Your task to perform on an android device: search for outdoor chairs on article.com Image 0: 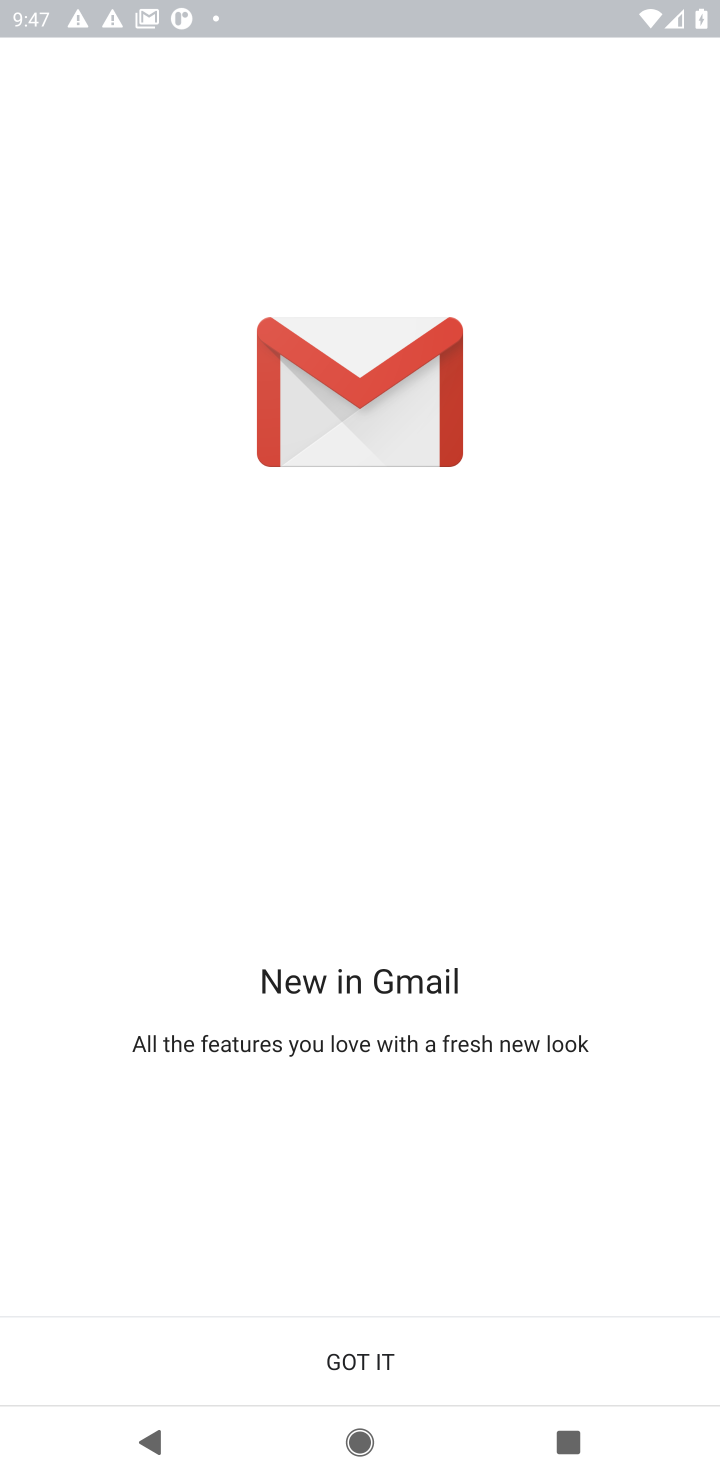
Step 0: press home button
Your task to perform on an android device: search for outdoor chairs on article.com Image 1: 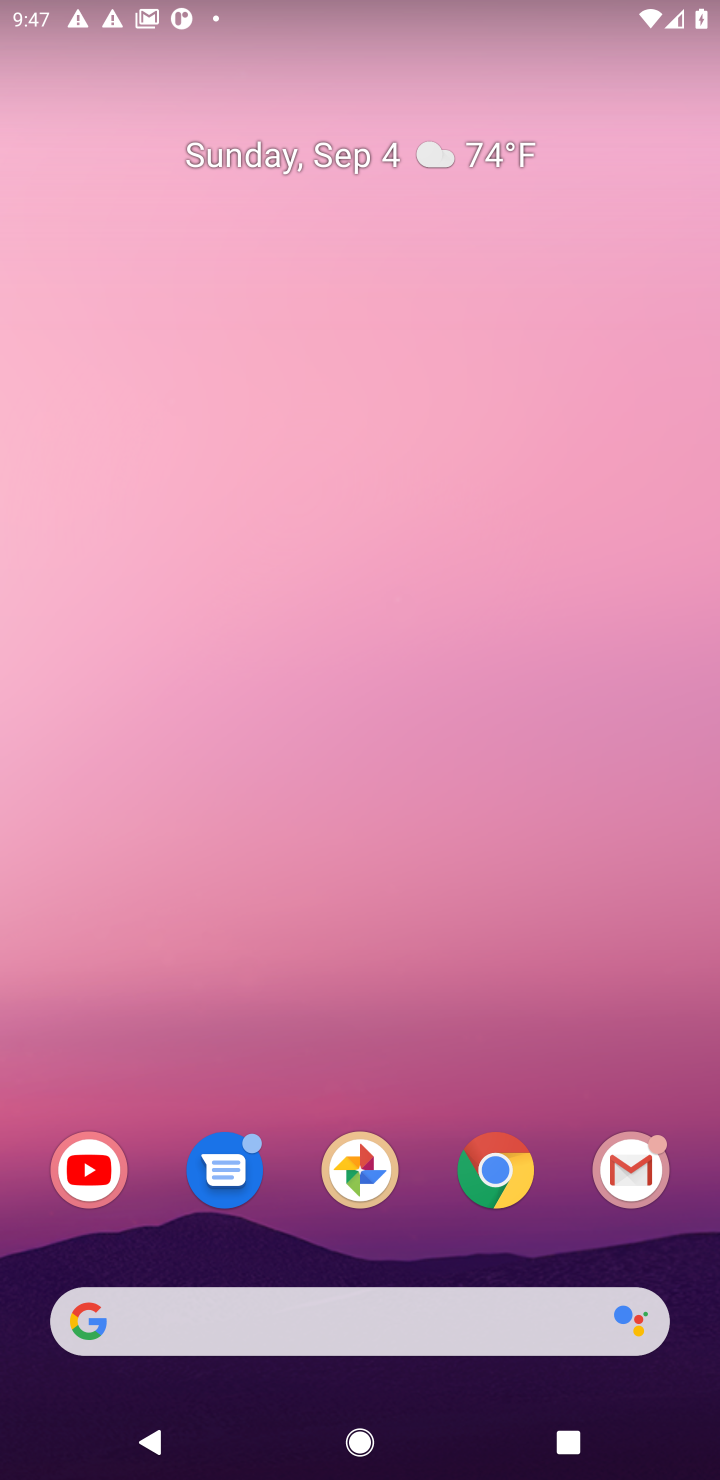
Step 1: drag from (339, 1246) to (422, 15)
Your task to perform on an android device: search for outdoor chairs on article.com Image 2: 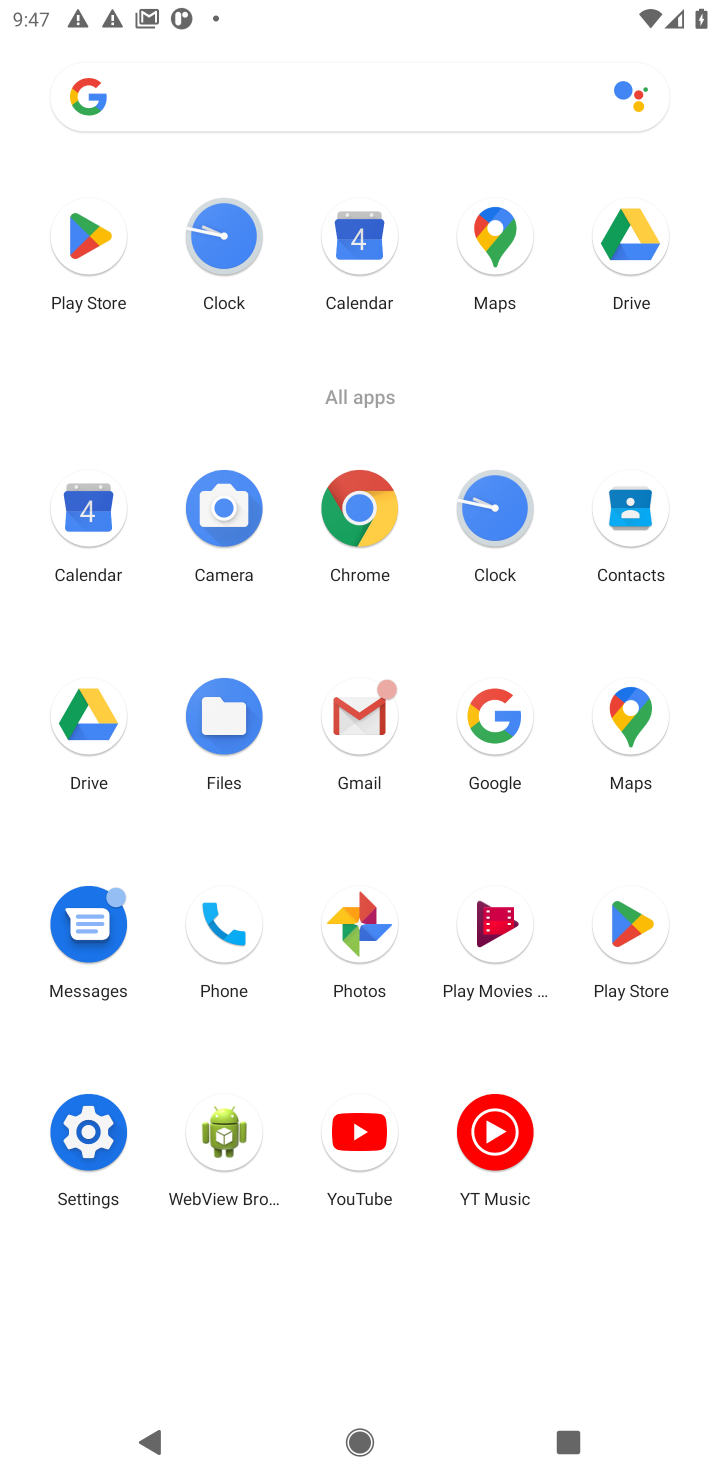
Step 2: click (333, 494)
Your task to perform on an android device: search for outdoor chairs on article.com Image 3: 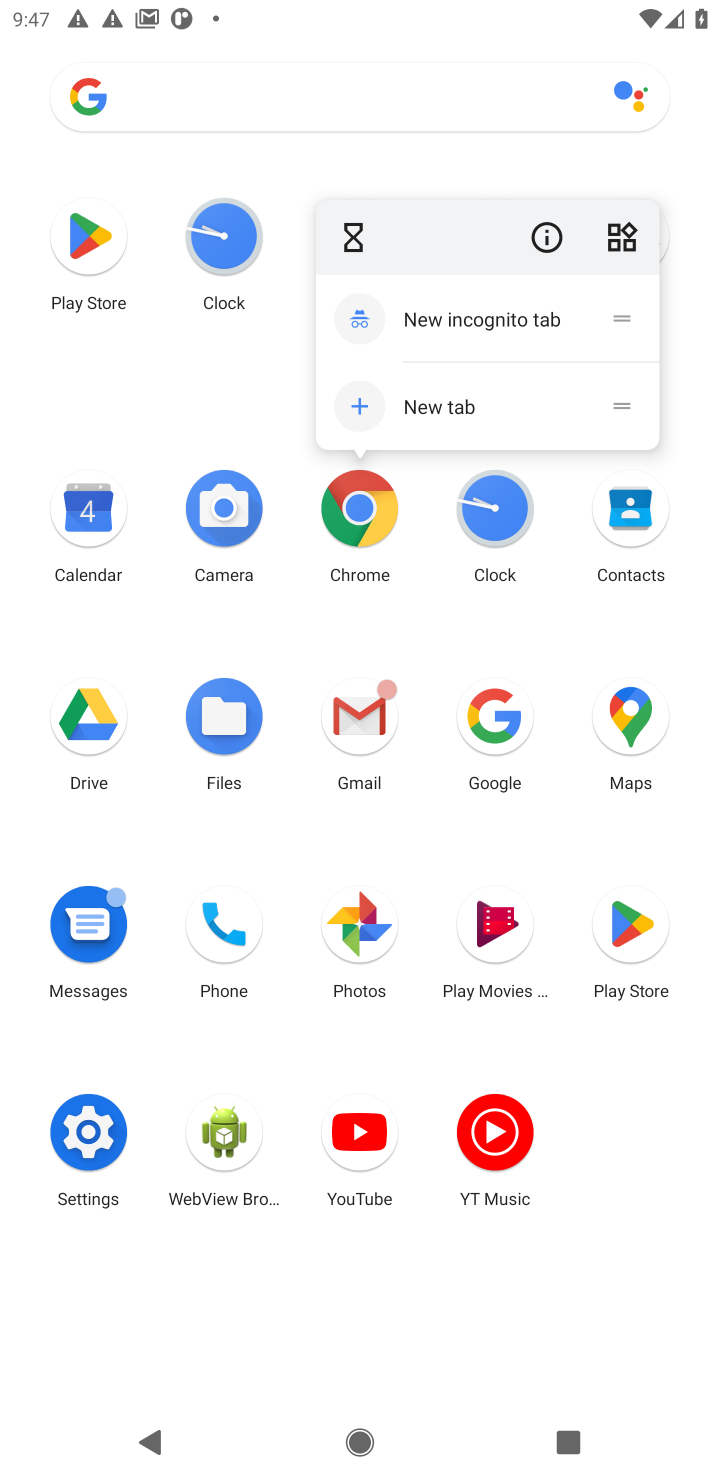
Step 3: click (333, 494)
Your task to perform on an android device: search for outdoor chairs on article.com Image 4: 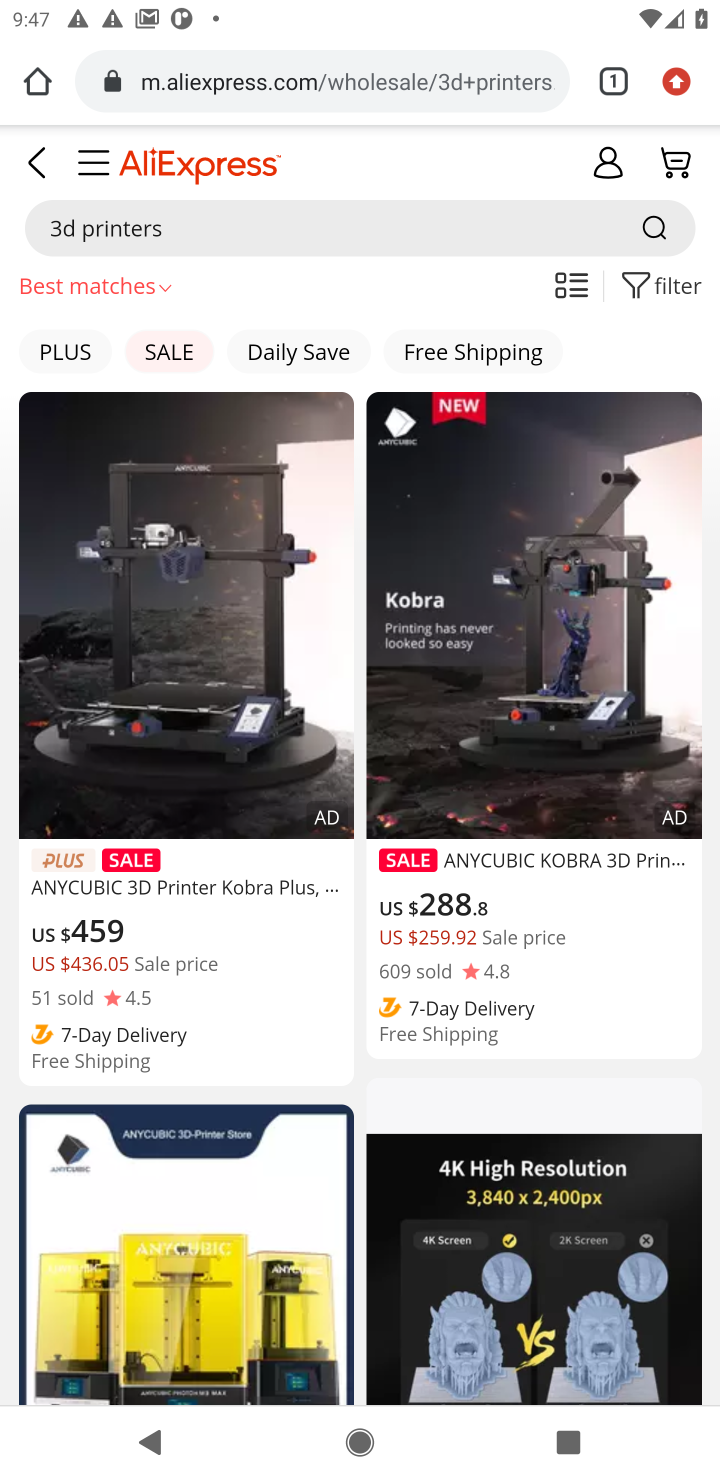
Step 4: click (304, 62)
Your task to perform on an android device: search for outdoor chairs on article.com Image 5: 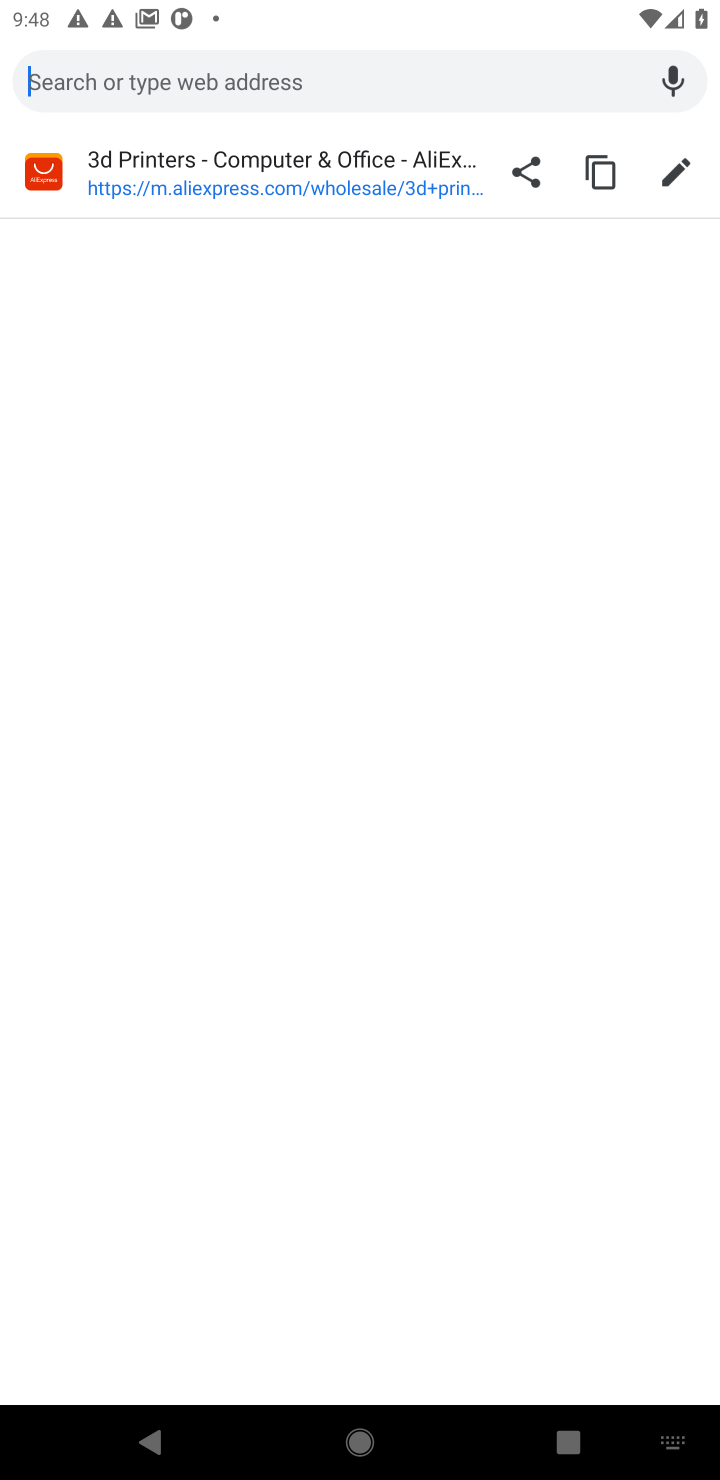
Step 5: type "Article"
Your task to perform on an android device: search for outdoor chairs on article.com Image 6: 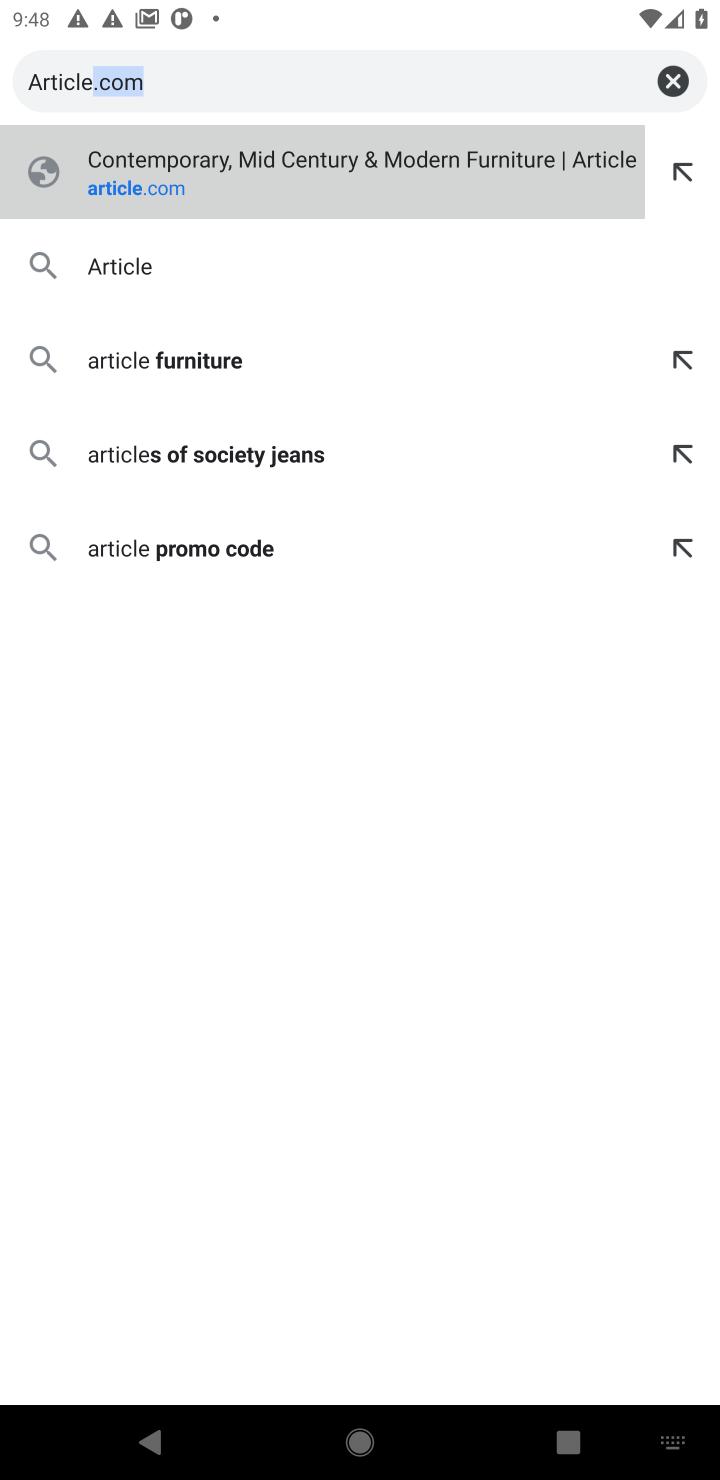
Step 6: type ".com"
Your task to perform on an android device: search for outdoor chairs on article.com Image 7: 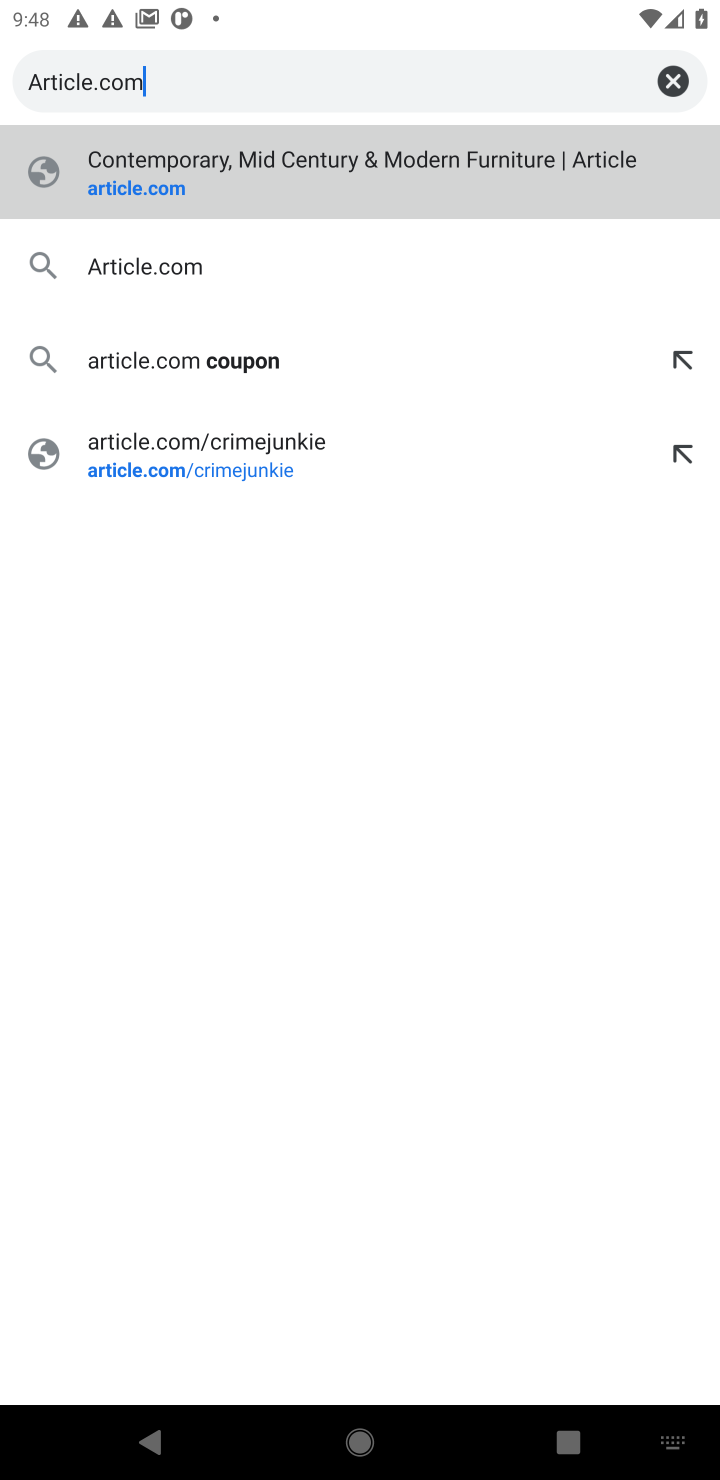
Step 7: click (176, 256)
Your task to perform on an android device: search for outdoor chairs on article.com Image 8: 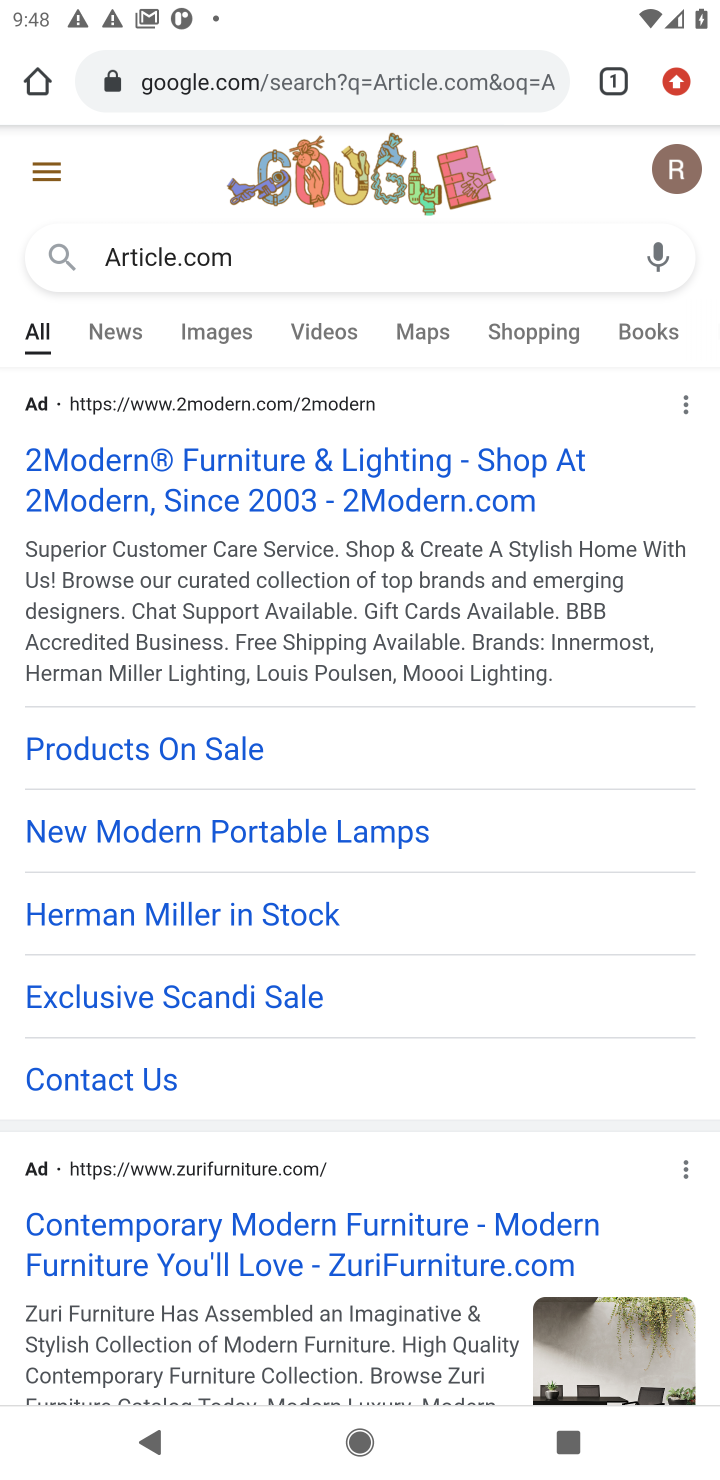
Step 8: drag from (232, 1362) to (323, 858)
Your task to perform on an android device: search for outdoor chairs on article.com Image 9: 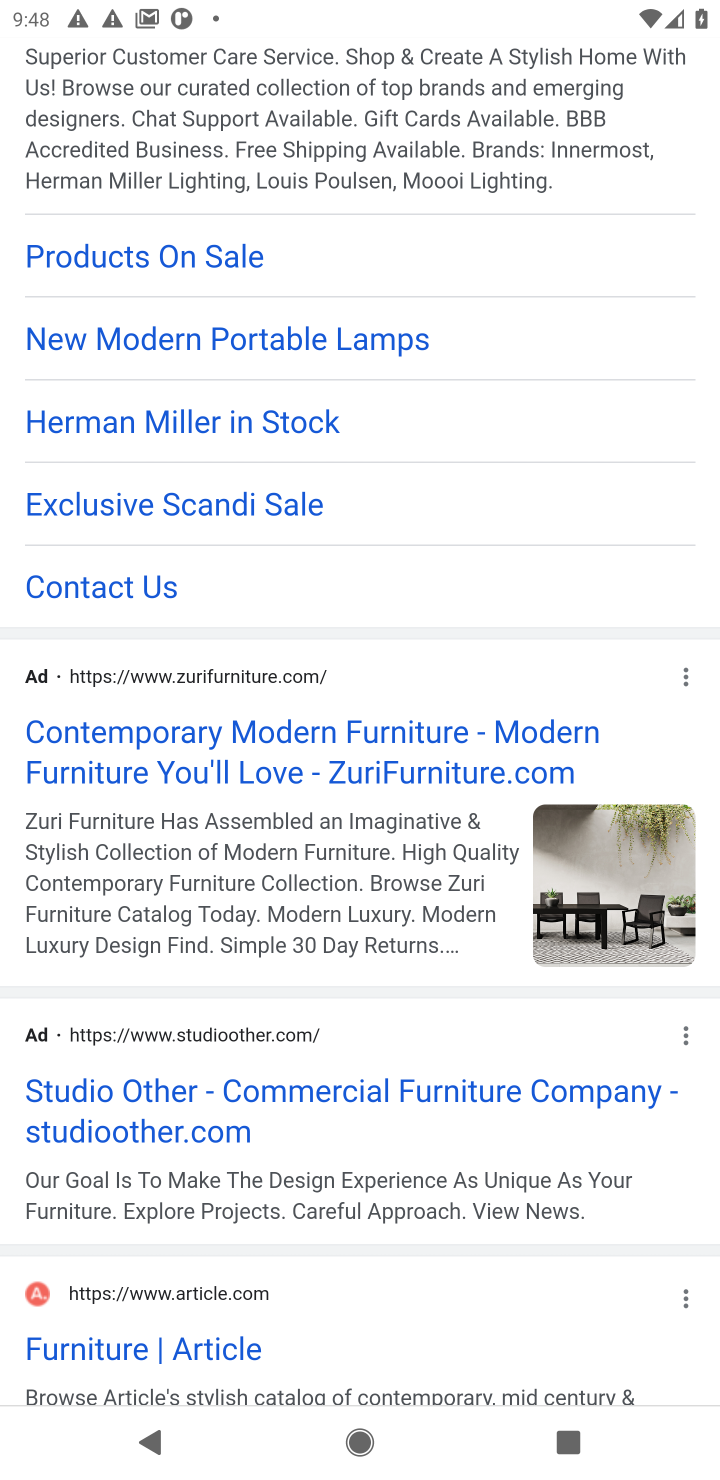
Step 9: drag from (203, 1209) to (253, 959)
Your task to perform on an android device: search for outdoor chairs on article.com Image 10: 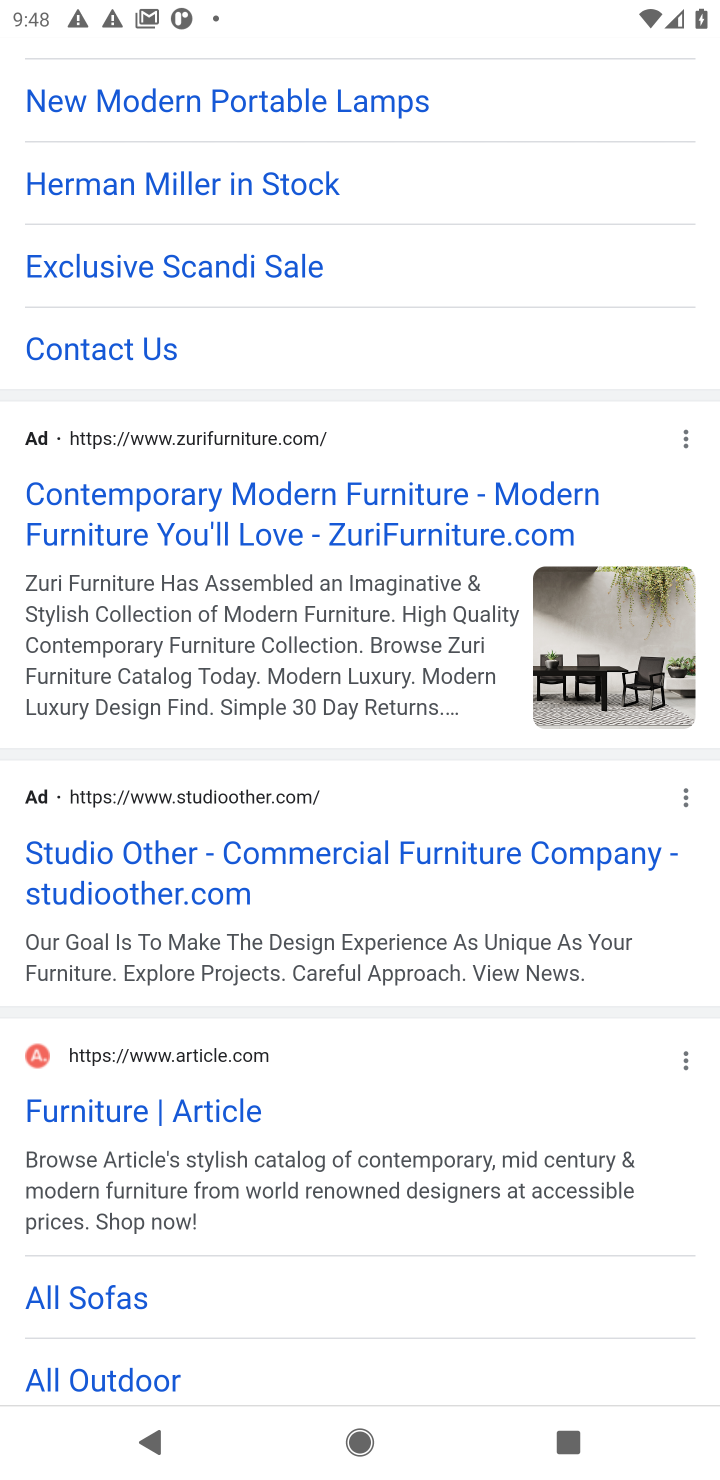
Step 10: click (167, 1115)
Your task to perform on an android device: search for outdoor chairs on article.com Image 11: 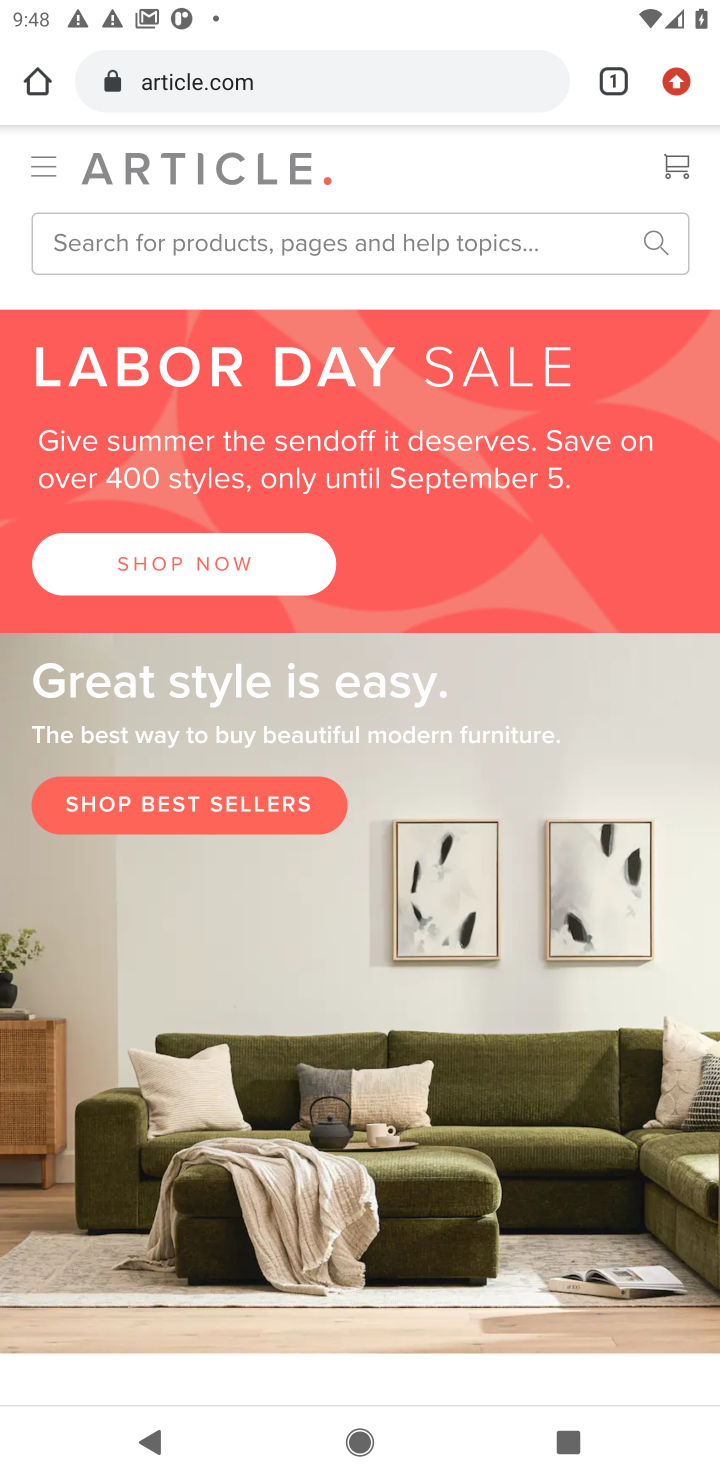
Step 11: click (172, 229)
Your task to perform on an android device: search for outdoor chairs on article.com Image 12: 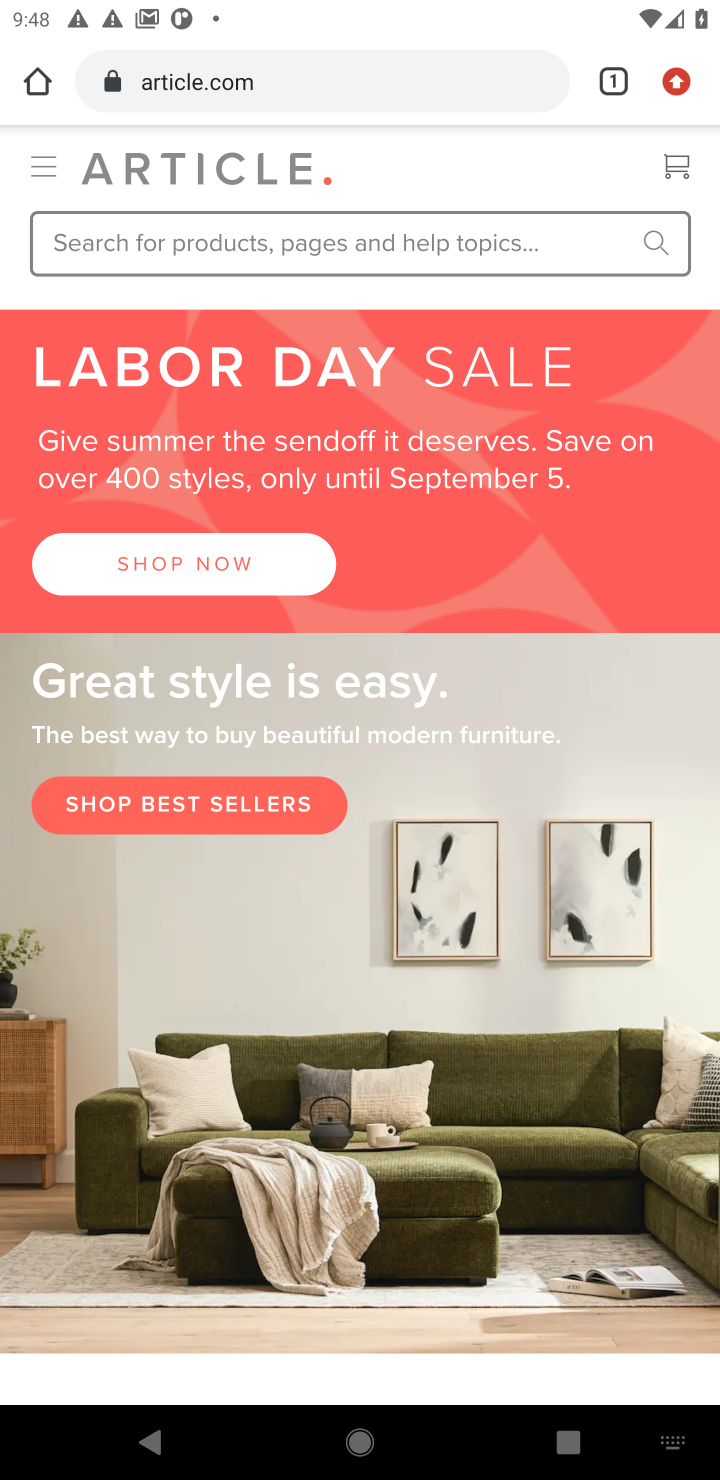
Step 12: type "outdoor chains"
Your task to perform on an android device: search for outdoor chairs on article.com Image 13: 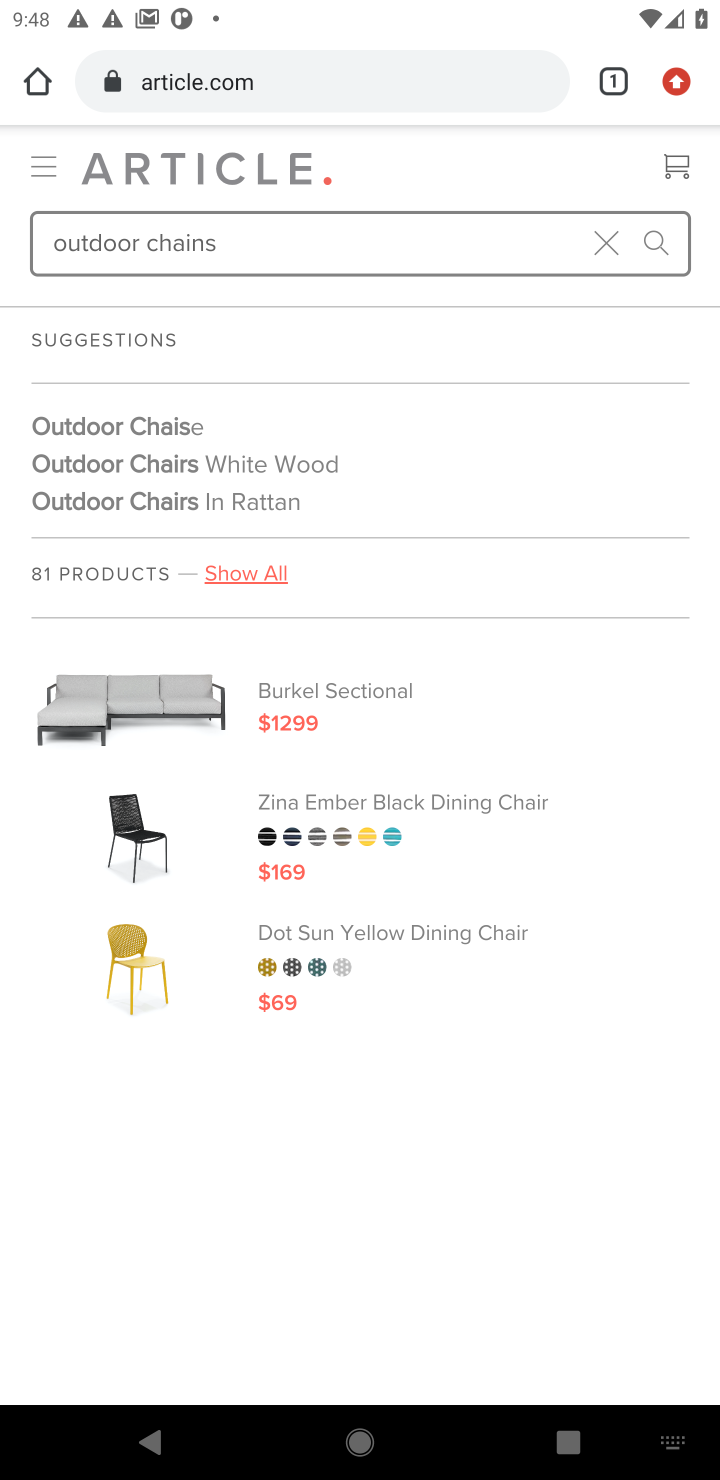
Step 13: click (650, 241)
Your task to perform on an android device: search for outdoor chairs on article.com Image 14: 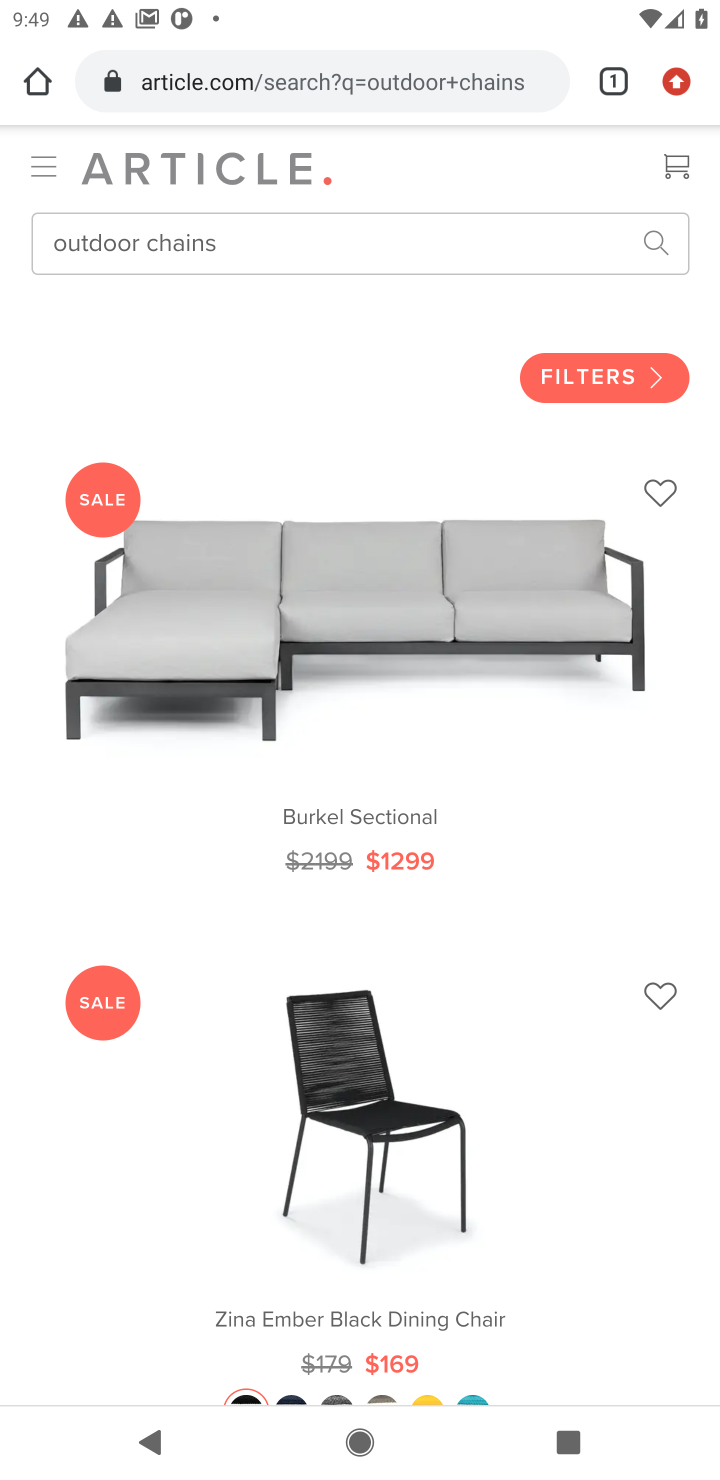
Step 14: task complete